Your task to perform on an android device: Turn off the flashlight Image 0: 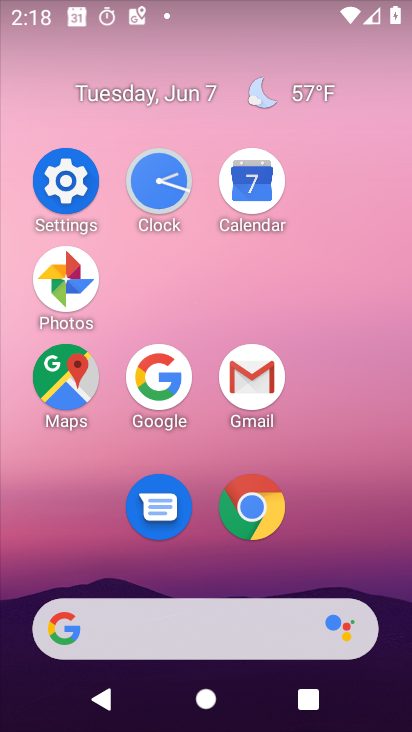
Step 0: drag from (221, 516) to (222, 570)
Your task to perform on an android device: Turn off the flashlight Image 1: 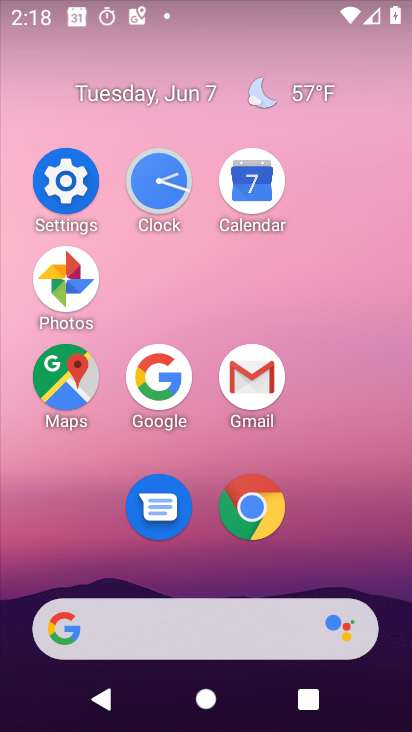
Step 1: task complete